Your task to perform on an android device: Go to Reddit.com Image 0: 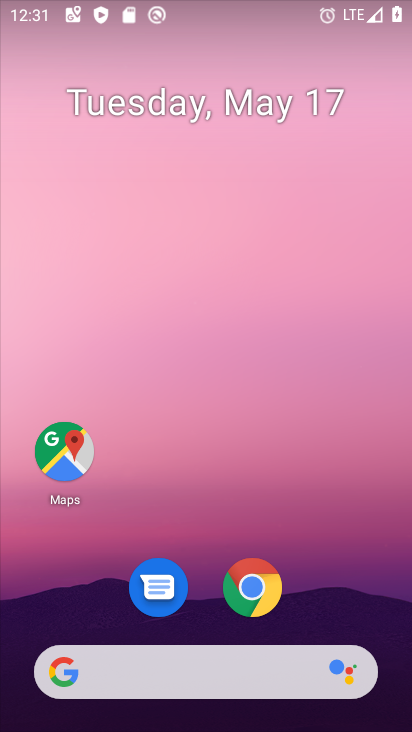
Step 0: drag from (387, 644) to (338, 96)
Your task to perform on an android device: Go to Reddit.com Image 1: 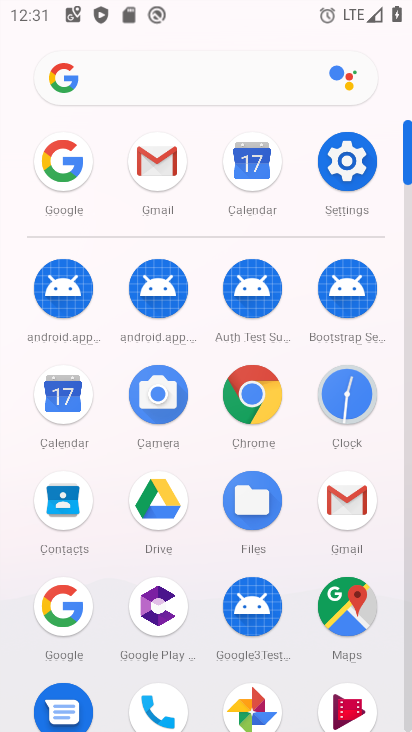
Step 1: click (265, 404)
Your task to perform on an android device: Go to Reddit.com Image 2: 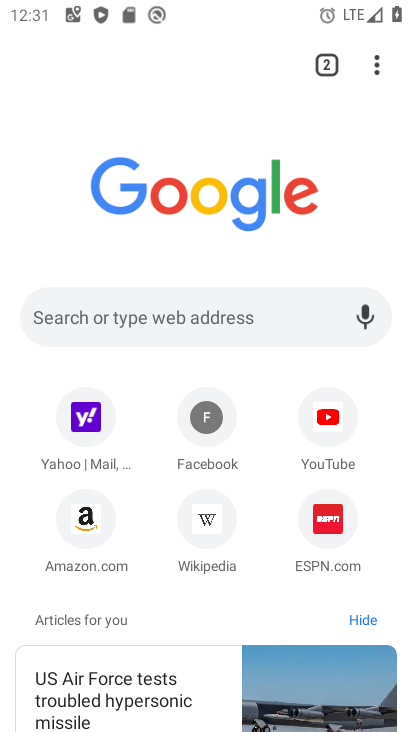
Step 2: click (120, 319)
Your task to perform on an android device: Go to Reddit.com Image 3: 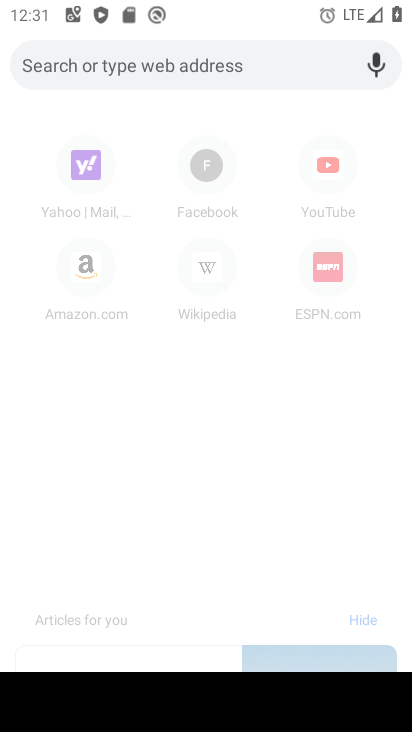
Step 3: type "reddit.com"
Your task to perform on an android device: Go to Reddit.com Image 4: 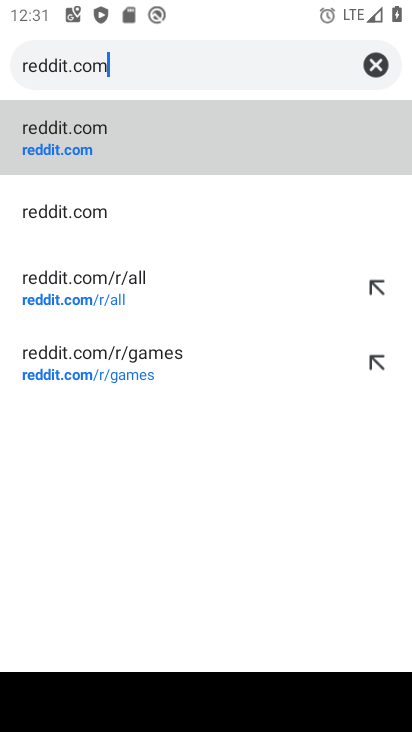
Step 4: click (97, 126)
Your task to perform on an android device: Go to Reddit.com Image 5: 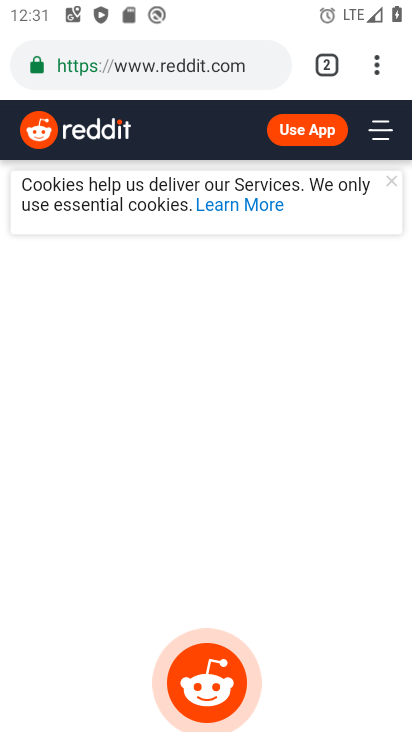
Step 5: task complete